Your task to perform on an android device: toggle priority inbox in the gmail app Image 0: 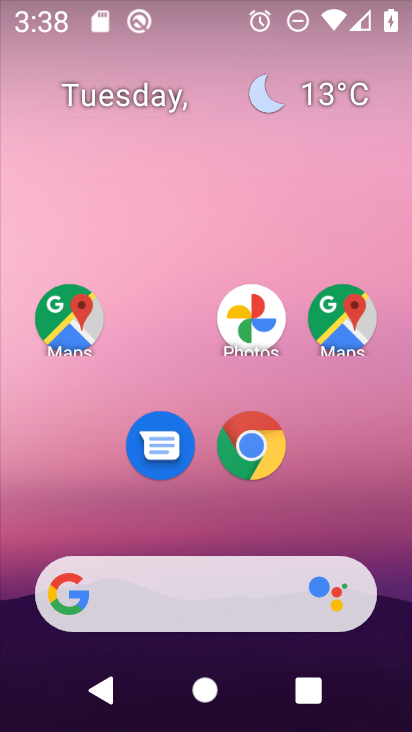
Step 0: drag from (387, 536) to (386, 273)
Your task to perform on an android device: toggle priority inbox in the gmail app Image 1: 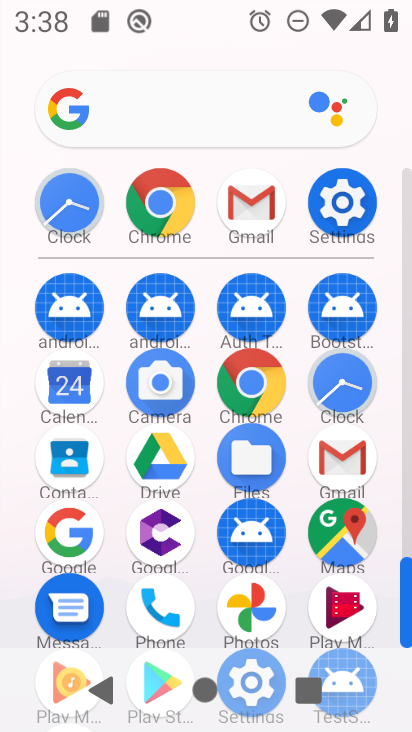
Step 1: click (357, 473)
Your task to perform on an android device: toggle priority inbox in the gmail app Image 2: 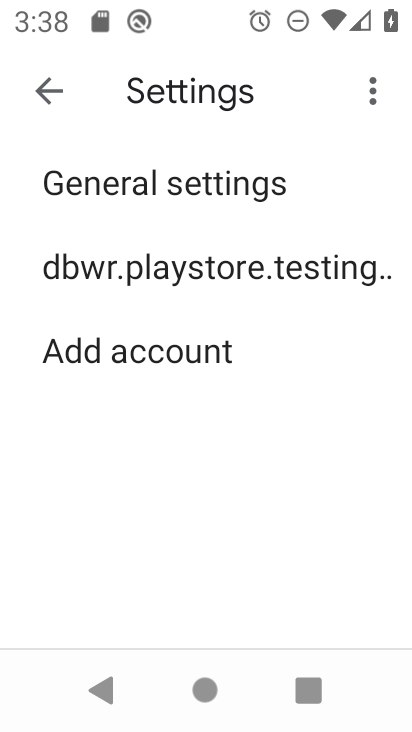
Step 2: click (349, 273)
Your task to perform on an android device: toggle priority inbox in the gmail app Image 3: 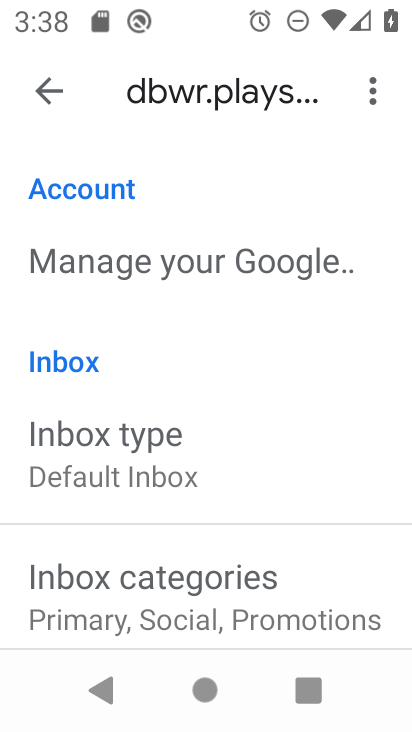
Step 3: drag from (366, 570) to (369, 505)
Your task to perform on an android device: toggle priority inbox in the gmail app Image 4: 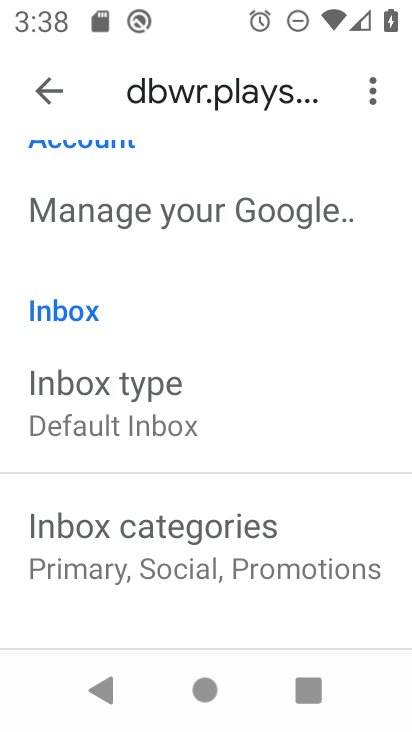
Step 4: drag from (380, 617) to (370, 541)
Your task to perform on an android device: toggle priority inbox in the gmail app Image 5: 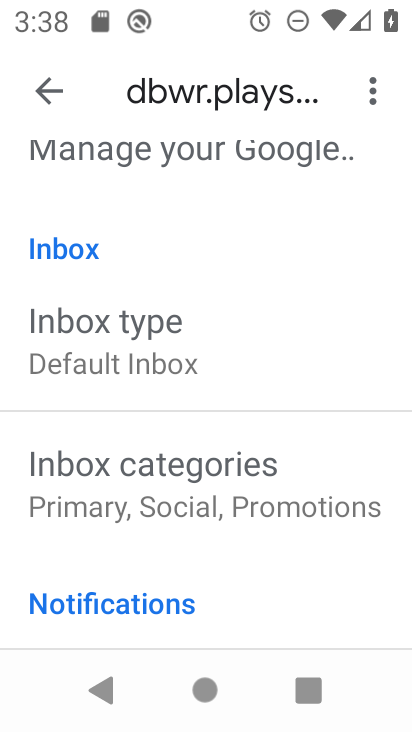
Step 5: drag from (366, 598) to (365, 528)
Your task to perform on an android device: toggle priority inbox in the gmail app Image 6: 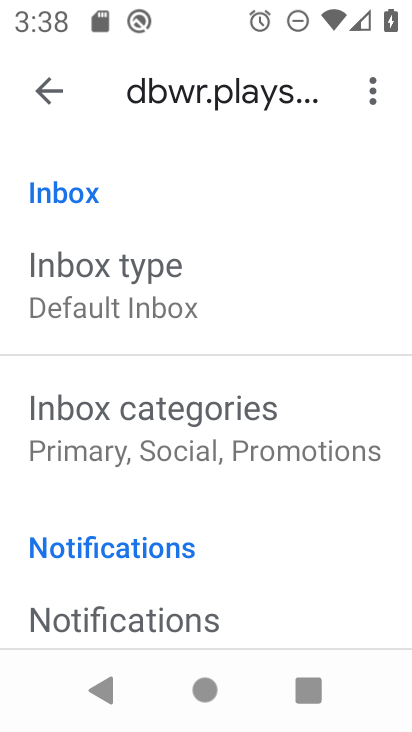
Step 6: drag from (362, 600) to (363, 525)
Your task to perform on an android device: toggle priority inbox in the gmail app Image 7: 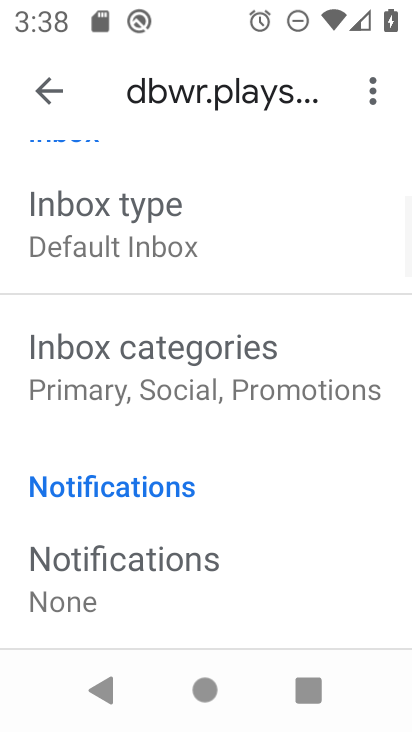
Step 7: drag from (361, 600) to (367, 536)
Your task to perform on an android device: toggle priority inbox in the gmail app Image 8: 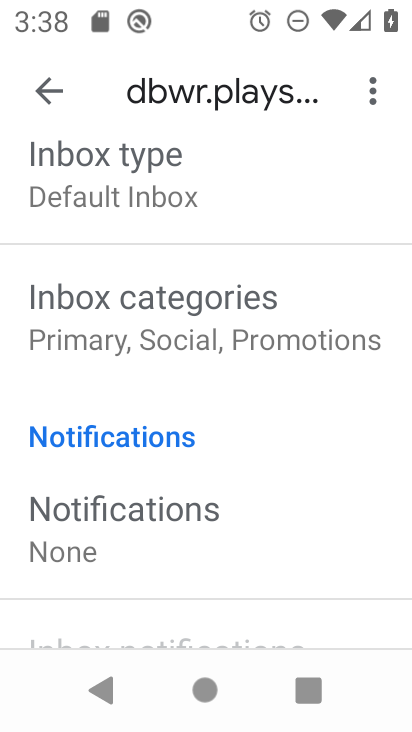
Step 8: drag from (361, 591) to (360, 524)
Your task to perform on an android device: toggle priority inbox in the gmail app Image 9: 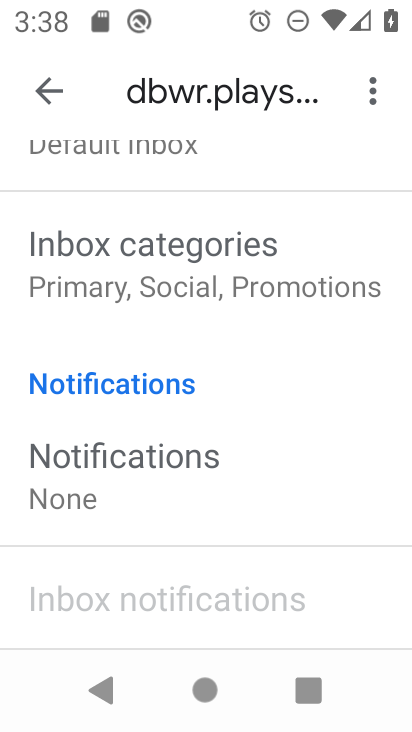
Step 9: drag from (358, 593) to (359, 538)
Your task to perform on an android device: toggle priority inbox in the gmail app Image 10: 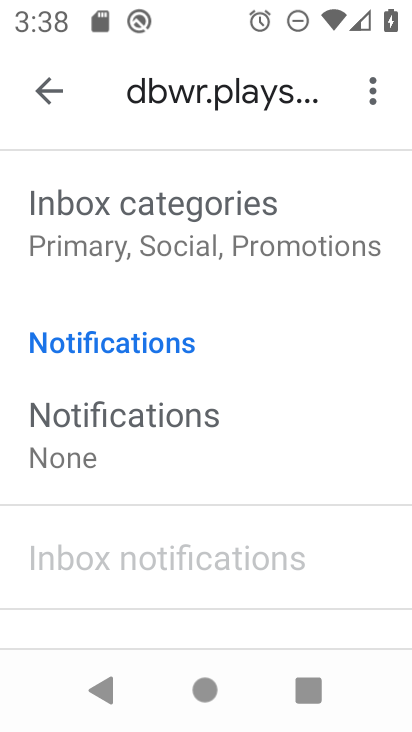
Step 10: drag from (366, 593) to (367, 548)
Your task to perform on an android device: toggle priority inbox in the gmail app Image 11: 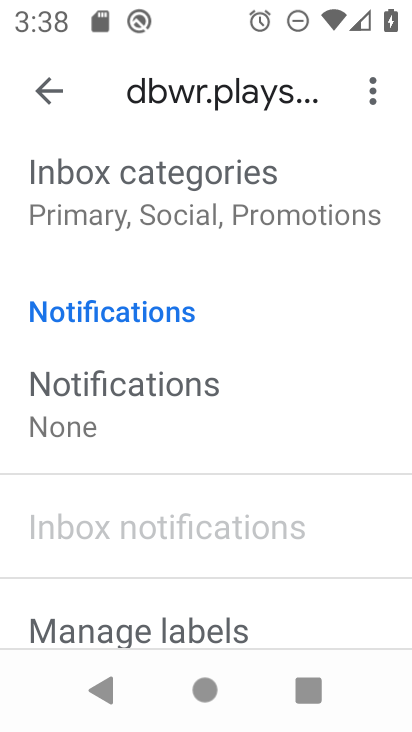
Step 11: drag from (360, 589) to (361, 520)
Your task to perform on an android device: toggle priority inbox in the gmail app Image 12: 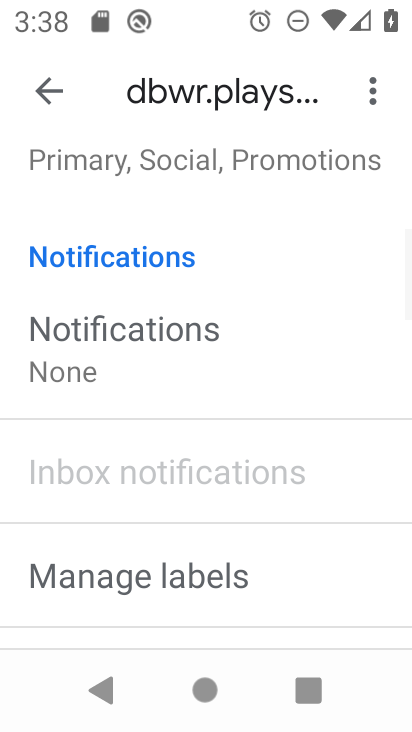
Step 12: drag from (371, 576) to (372, 512)
Your task to perform on an android device: toggle priority inbox in the gmail app Image 13: 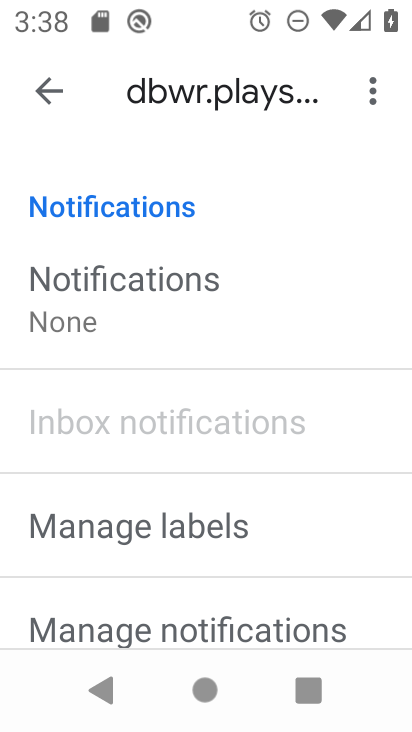
Step 13: drag from (374, 598) to (377, 534)
Your task to perform on an android device: toggle priority inbox in the gmail app Image 14: 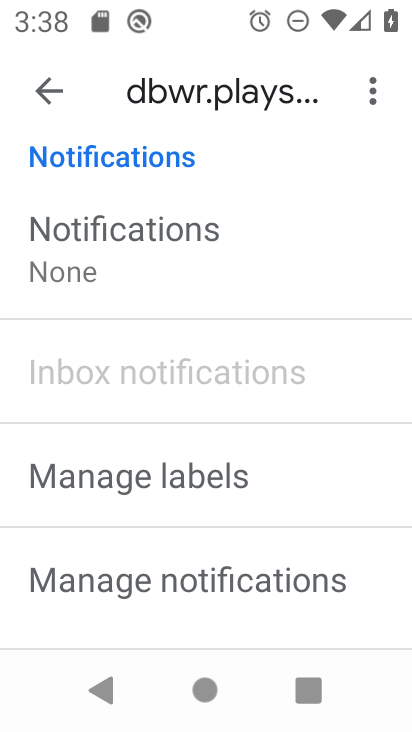
Step 14: drag from (374, 612) to (371, 525)
Your task to perform on an android device: toggle priority inbox in the gmail app Image 15: 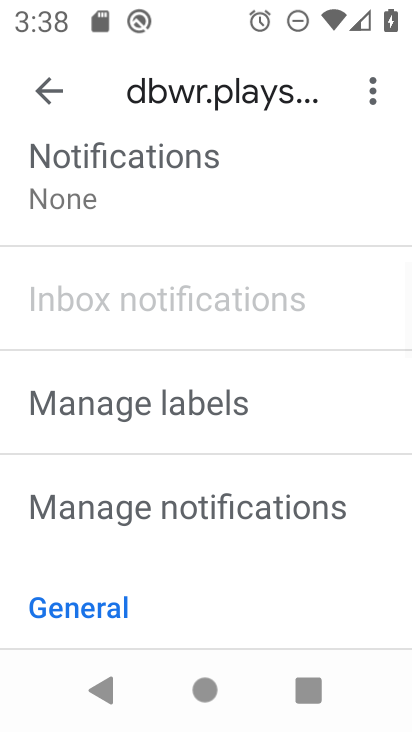
Step 15: drag from (372, 323) to (366, 408)
Your task to perform on an android device: toggle priority inbox in the gmail app Image 16: 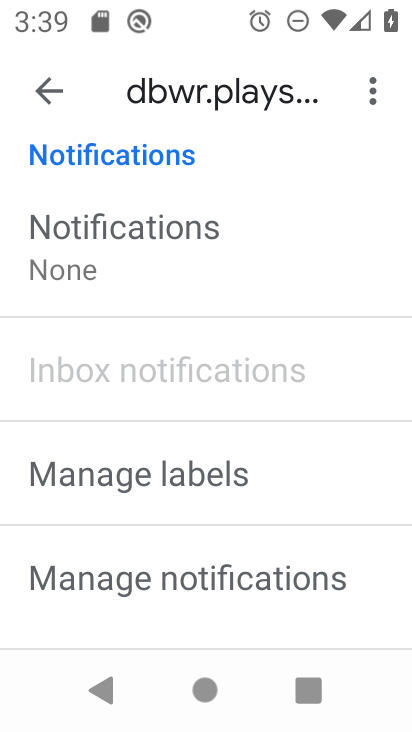
Step 16: drag from (358, 300) to (365, 363)
Your task to perform on an android device: toggle priority inbox in the gmail app Image 17: 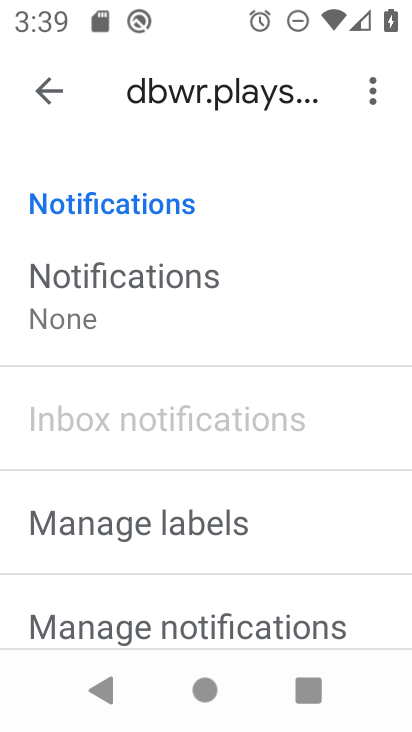
Step 17: drag from (375, 287) to (376, 363)
Your task to perform on an android device: toggle priority inbox in the gmail app Image 18: 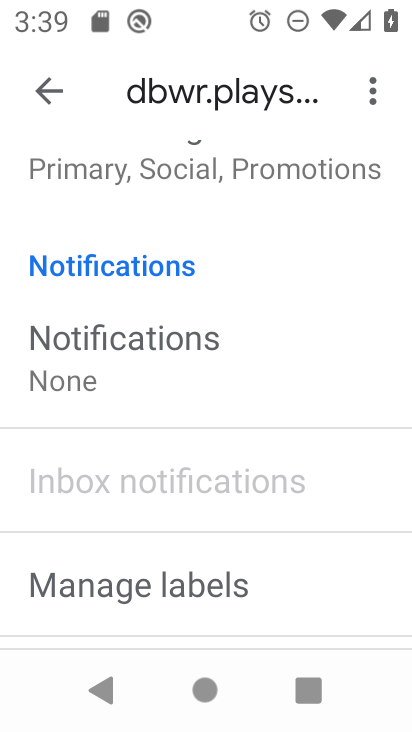
Step 18: drag from (379, 257) to (389, 351)
Your task to perform on an android device: toggle priority inbox in the gmail app Image 19: 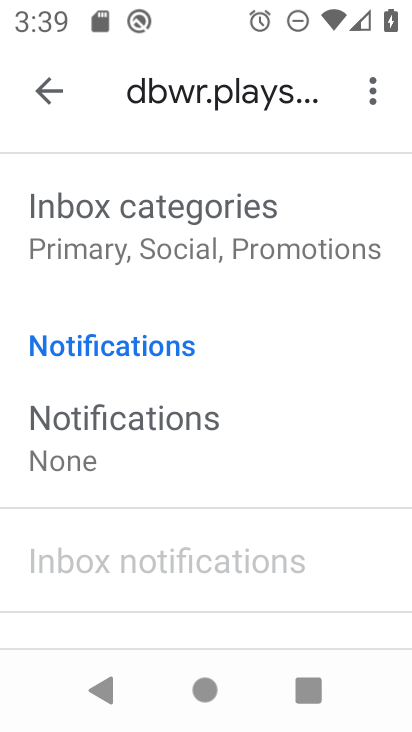
Step 19: drag from (383, 256) to (385, 354)
Your task to perform on an android device: toggle priority inbox in the gmail app Image 20: 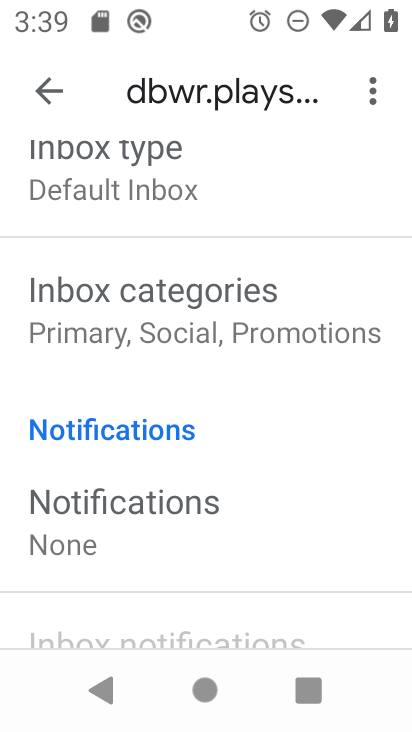
Step 20: drag from (375, 263) to (374, 360)
Your task to perform on an android device: toggle priority inbox in the gmail app Image 21: 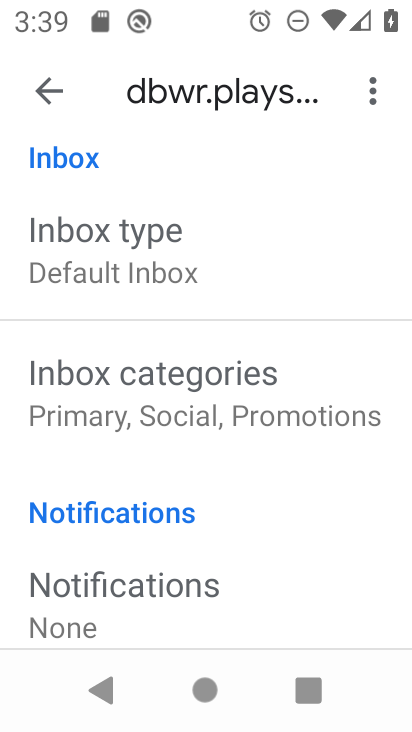
Step 21: drag from (375, 259) to (374, 333)
Your task to perform on an android device: toggle priority inbox in the gmail app Image 22: 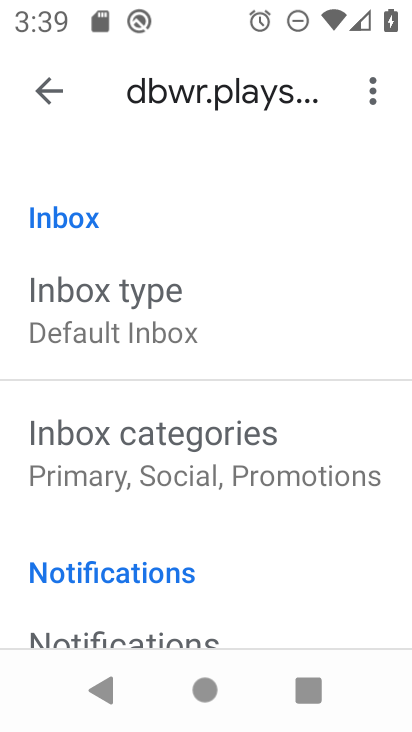
Step 22: click (181, 327)
Your task to perform on an android device: toggle priority inbox in the gmail app Image 23: 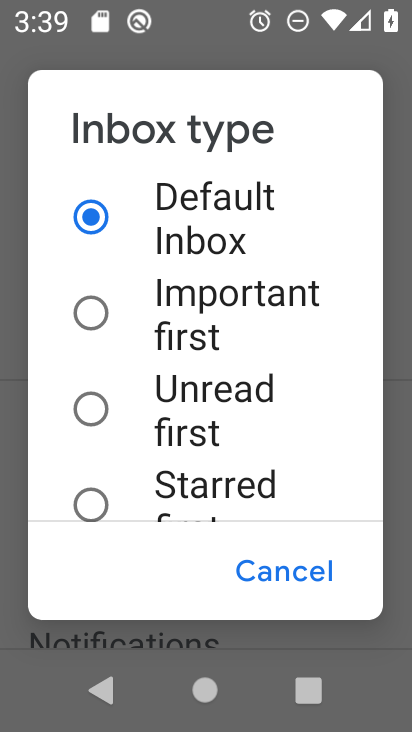
Step 23: drag from (260, 491) to (276, 383)
Your task to perform on an android device: toggle priority inbox in the gmail app Image 24: 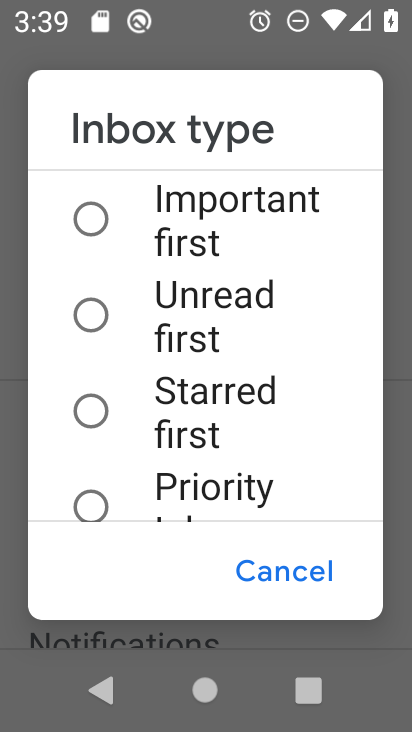
Step 24: click (102, 502)
Your task to perform on an android device: toggle priority inbox in the gmail app Image 25: 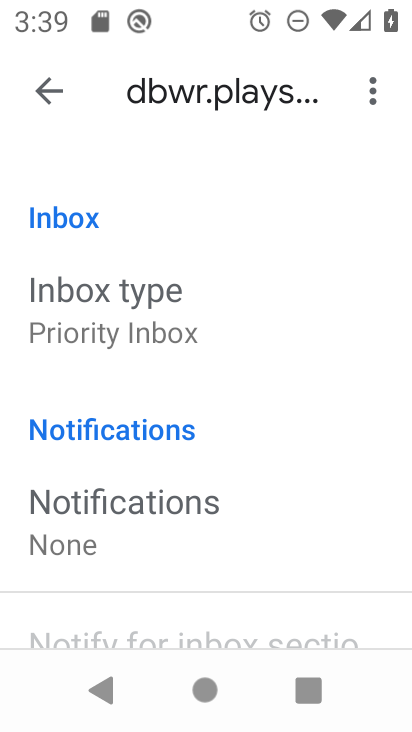
Step 25: task complete